Your task to perform on an android device: turn off improve location accuracy Image 0: 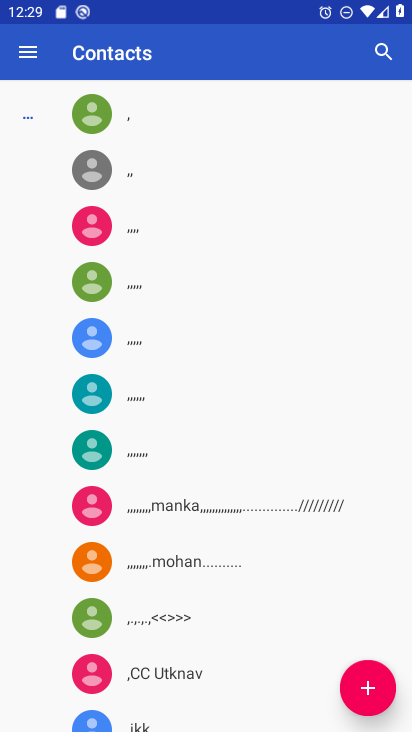
Step 0: press home button
Your task to perform on an android device: turn off improve location accuracy Image 1: 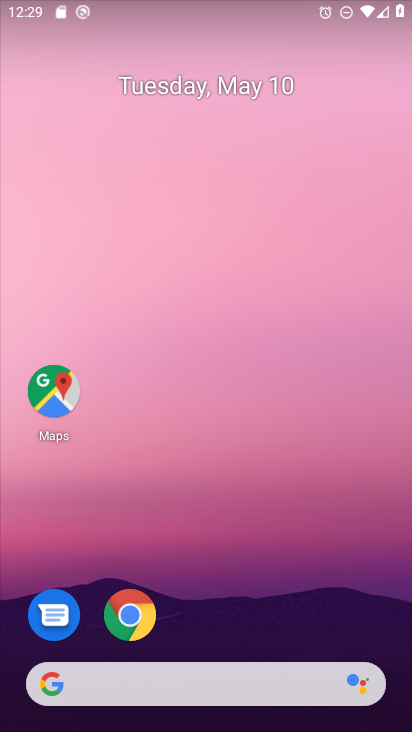
Step 1: drag from (200, 695) to (195, 349)
Your task to perform on an android device: turn off improve location accuracy Image 2: 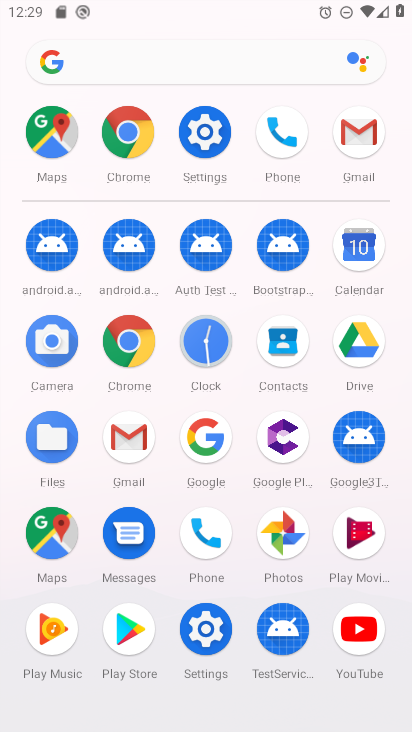
Step 2: click (210, 147)
Your task to perform on an android device: turn off improve location accuracy Image 3: 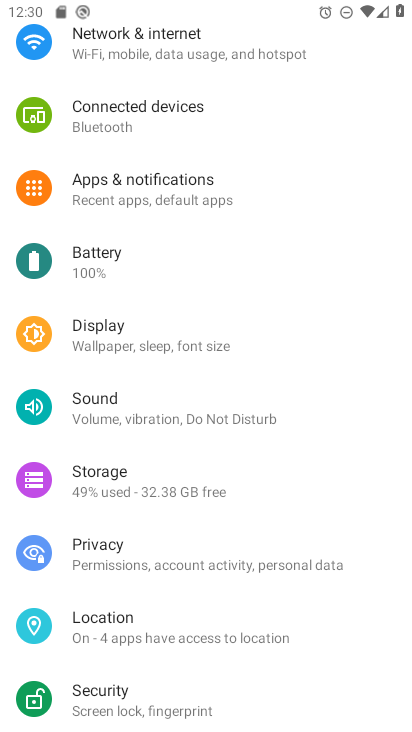
Step 3: click (111, 630)
Your task to perform on an android device: turn off improve location accuracy Image 4: 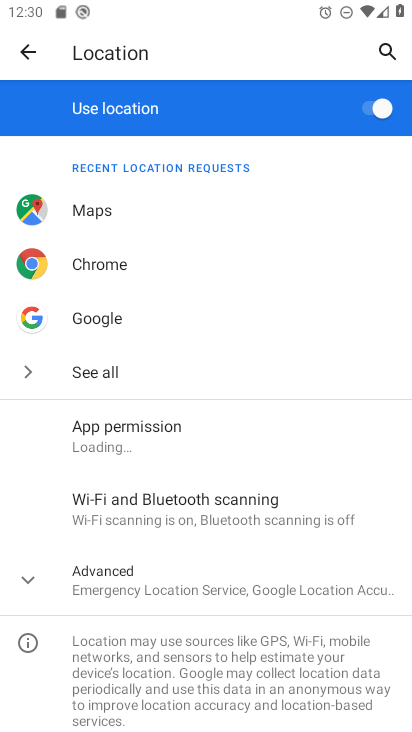
Step 4: click (121, 560)
Your task to perform on an android device: turn off improve location accuracy Image 5: 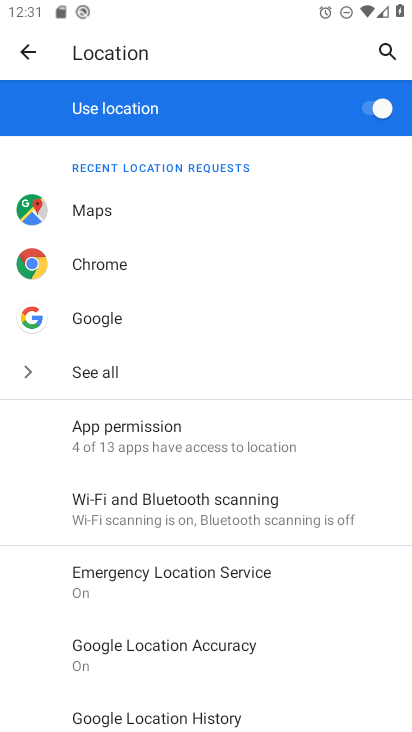
Step 5: click (114, 647)
Your task to perform on an android device: turn off improve location accuracy Image 6: 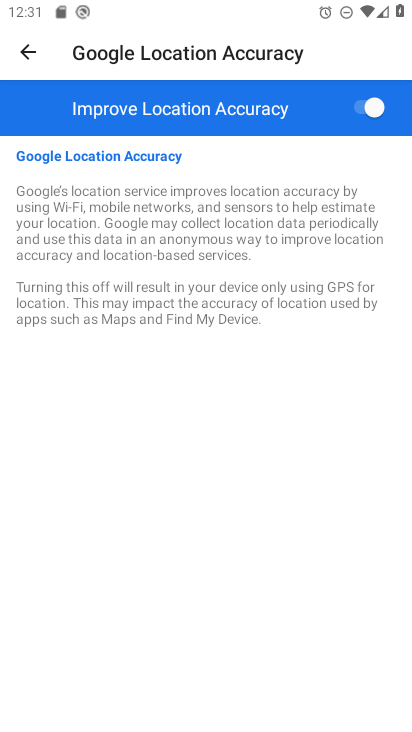
Step 6: click (349, 110)
Your task to perform on an android device: turn off improve location accuracy Image 7: 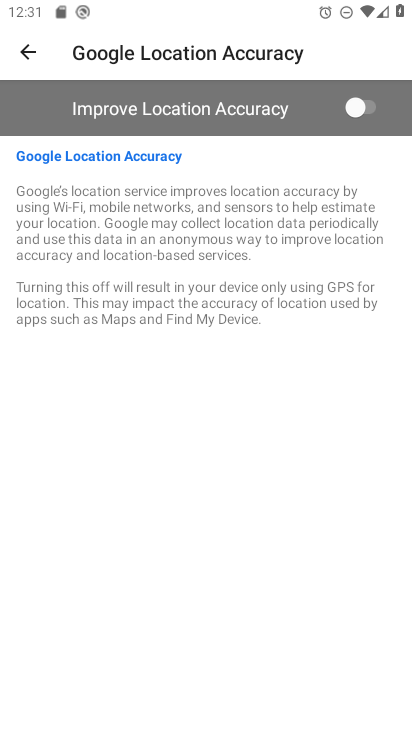
Step 7: task complete